Your task to perform on an android device: turn off improve location accuracy Image 0: 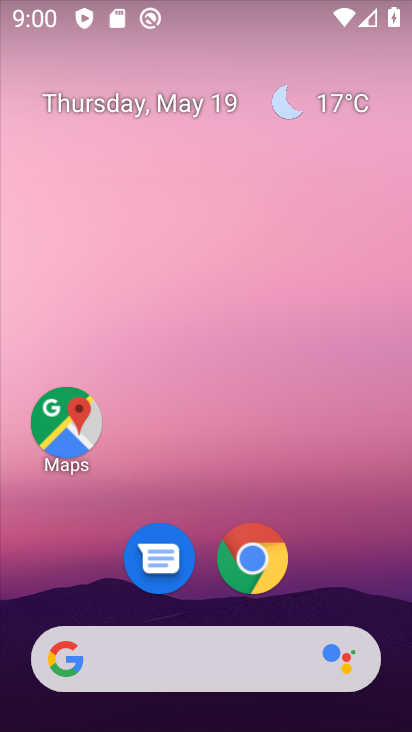
Step 0: drag from (236, 717) to (238, 232)
Your task to perform on an android device: turn off improve location accuracy Image 1: 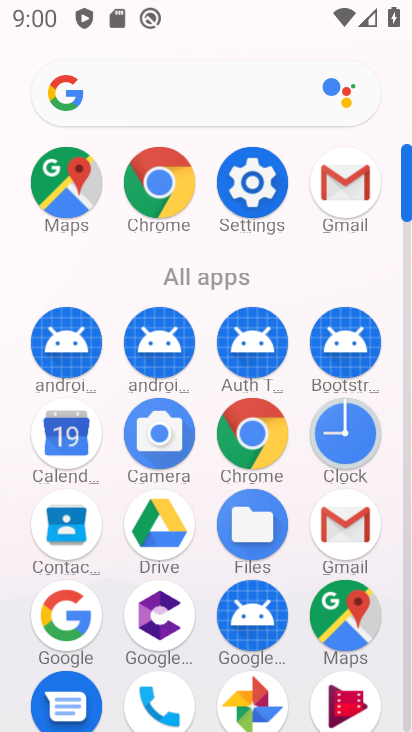
Step 1: click (262, 188)
Your task to perform on an android device: turn off improve location accuracy Image 2: 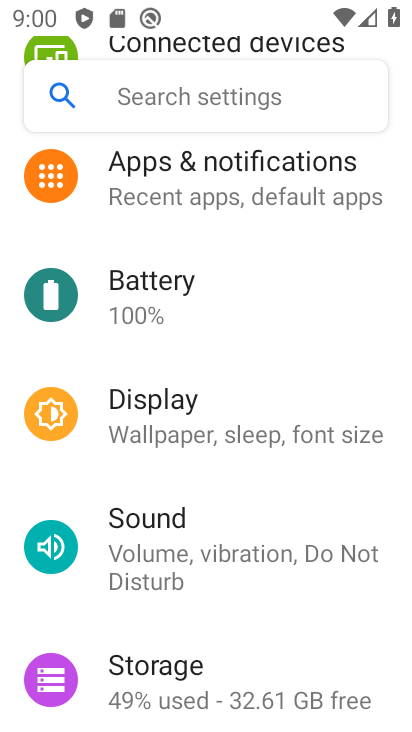
Step 2: drag from (176, 683) to (191, 279)
Your task to perform on an android device: turn off improve location accuracy Image 3: 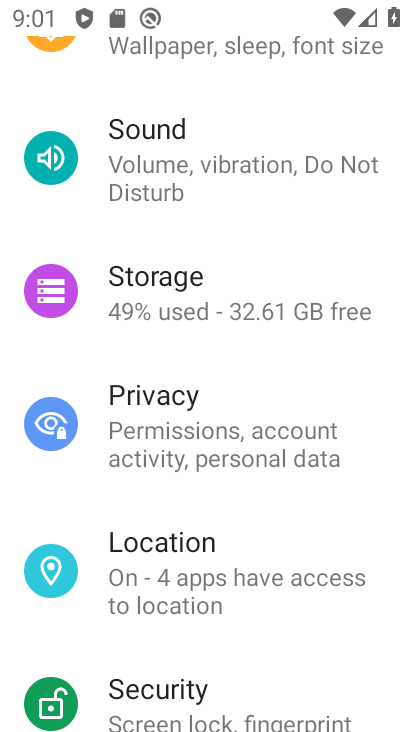
Step 3: click (169, 568)
Your task to perform on an android device: turn off improve location accuracy Image 4: 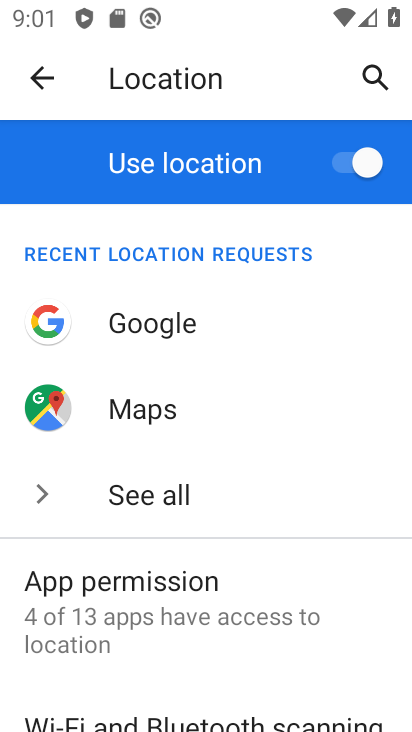
Step 4: drag from (168, 653) to (165, 407)
Your task to perform on an android device: turn off improve location accuracy Image 5: 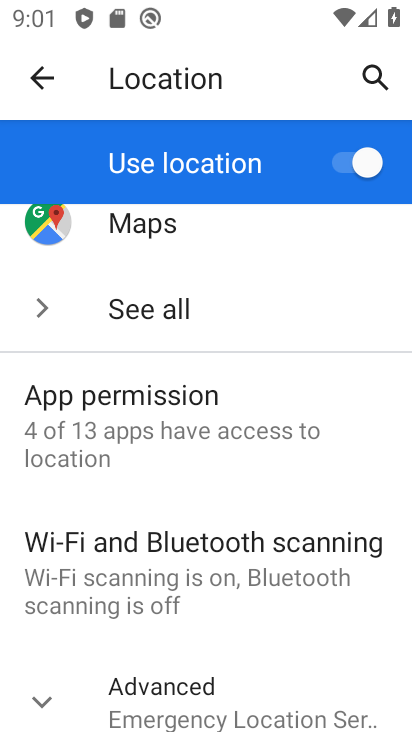
Step 5: click (176, 696)
Your task to perform on an android device: turn off improve location accuracy Image 6: 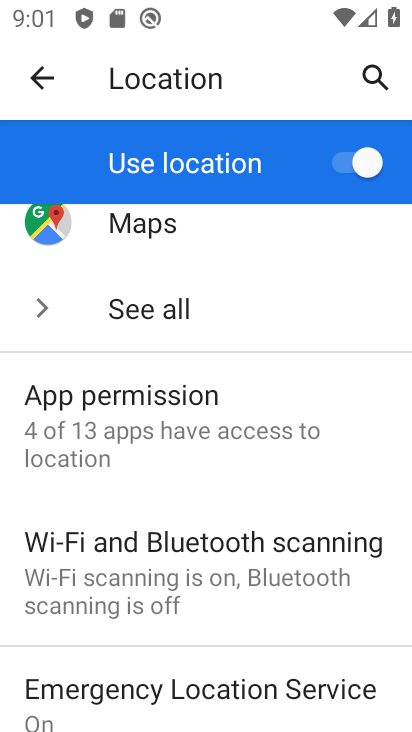
Step 6: drag from (194, 663) to (187, 370)
Your task to perform on an android device: turn off improve location accuracy Image 7: 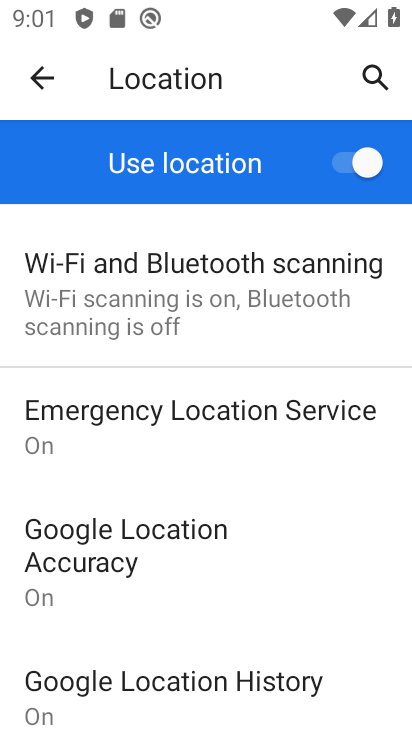
Step 7: click (115, 539)
Your task to perform on an android device: turn off improve location accuracy Image 8: 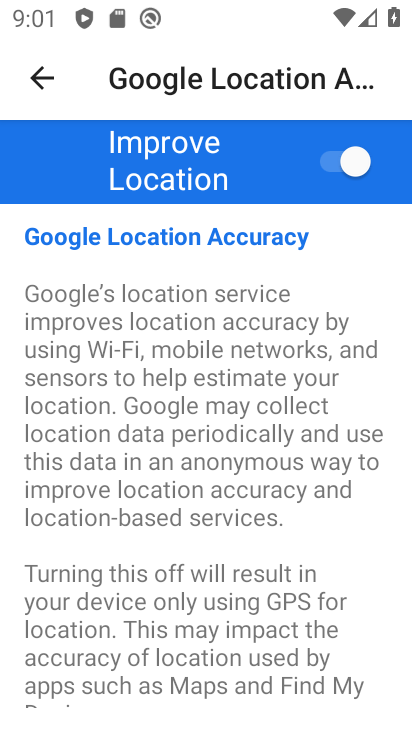
Step 8: click (334, 161)
Your task to perform on an android device: turn off improve location accuracy Image 9: 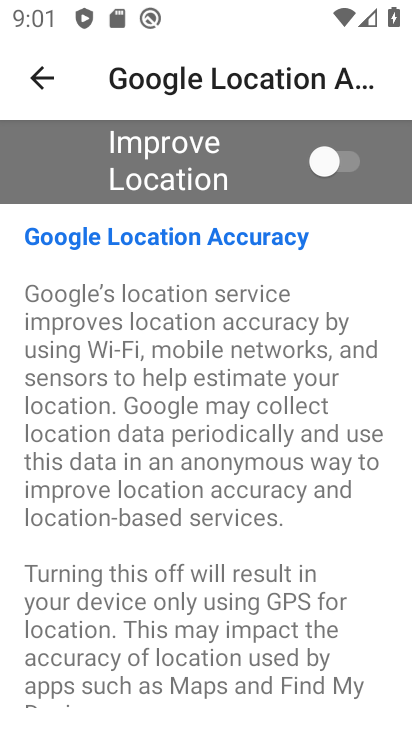
Step 9: task complete